Your task to perform on an android device: Open maps Image 0: 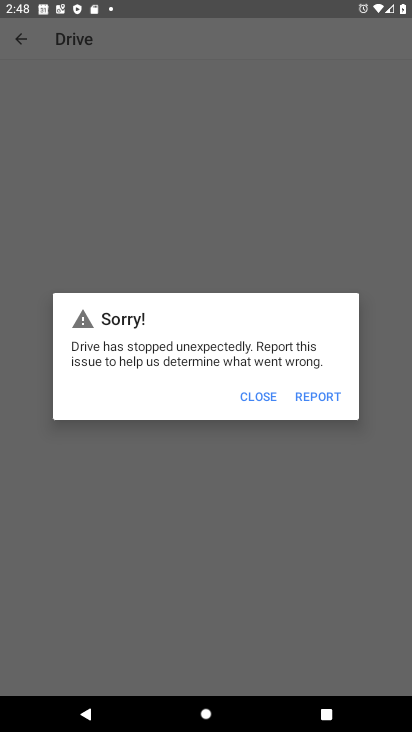
Step 0: press home button
Your task to perform on an android device: Open maps Image 1: 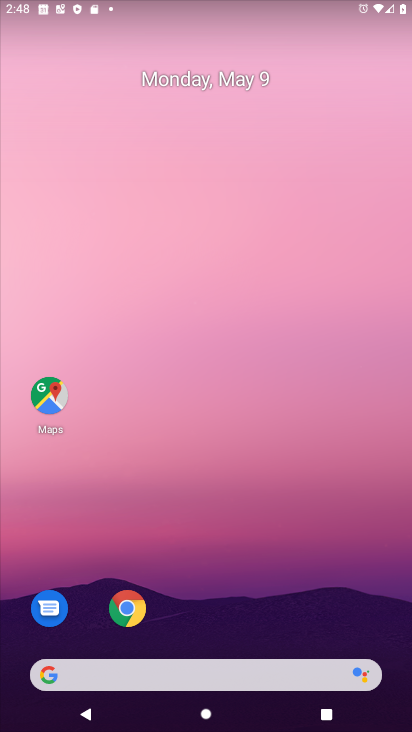
Step 1: click (46, 398)
Your task to perform on an android device: Open maps Image 2: 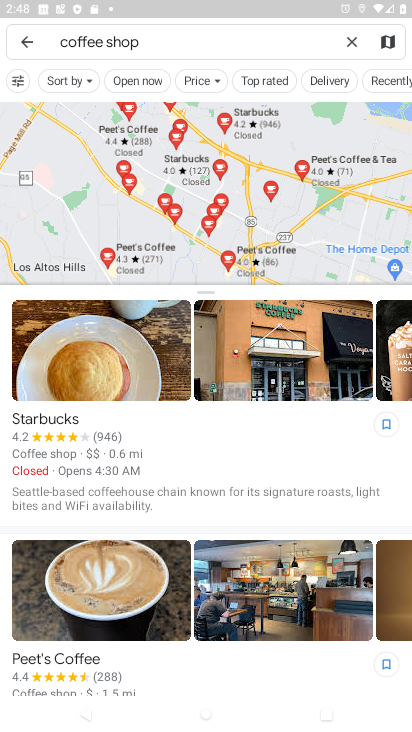
Step 2: task complete